Your task to perform on an android device: Open battery settings Image 0: 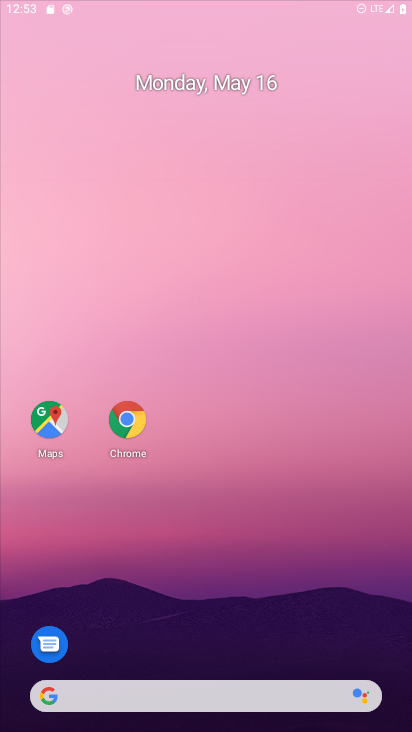
Step 0: click (209, 103)
Your task to perform on an android device: Open battery settings Image 1: 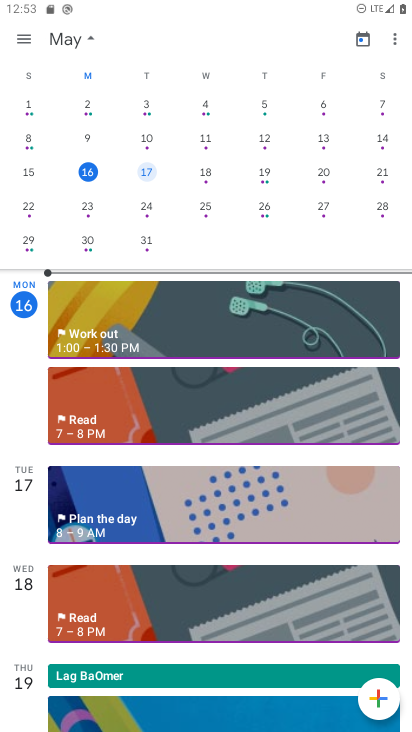
Step 1: drag from (238, 609) to (268, 344)
Your task to perform on an android device: Open battery settings Image 2: 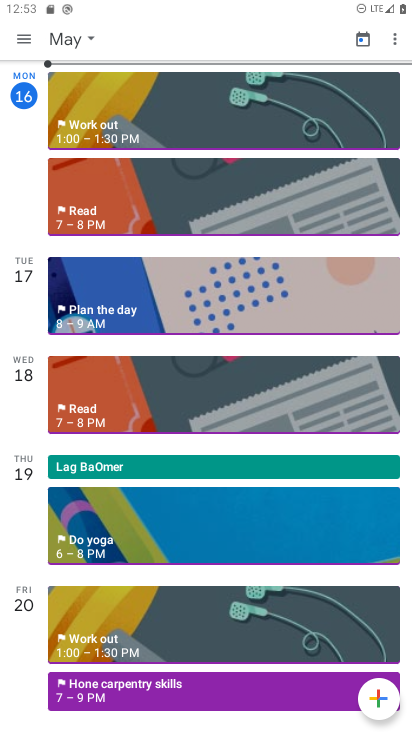
Step 2: drag from (226, 651) to (219, 343)
Your task to perform on an android device: Open battery settings Image 3: 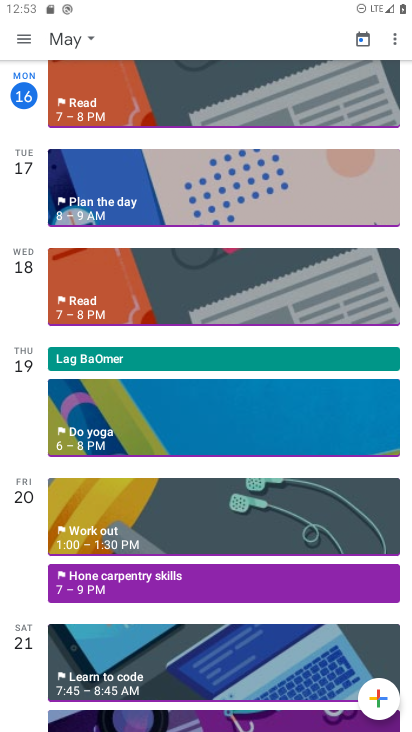
Step 3: drag from (196, 344) to (284, 723)
Your task to perform on an android device: Open battery settings Image 4: 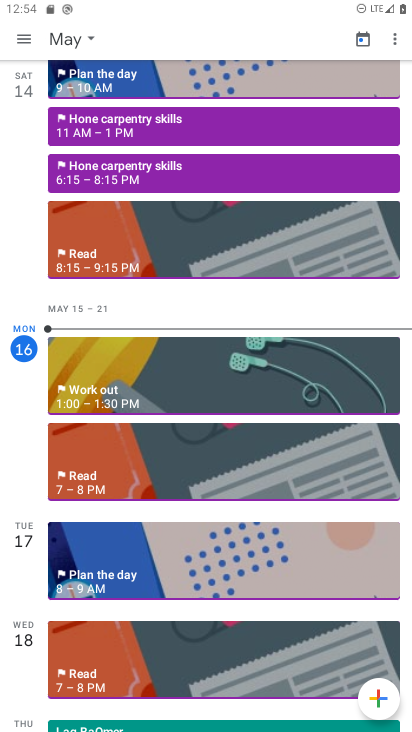
Step 4: click (76, 46)
Your task to perform on an android device: Open battery settings Image 5: 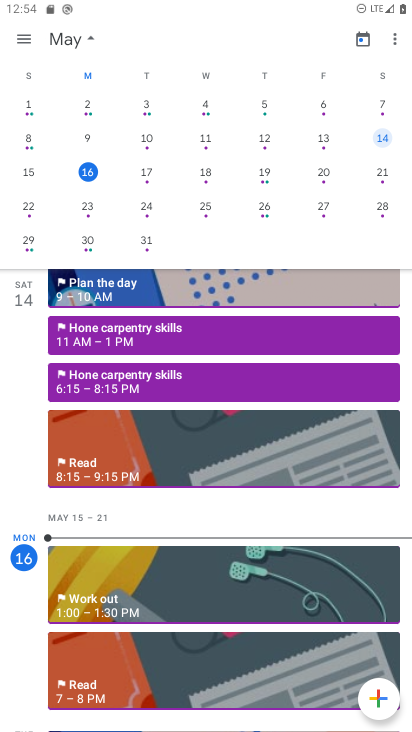
Step 5: drag from (362, 208) to (80, 199)
Your task to perform on an android device: Open battery settings Image 6: 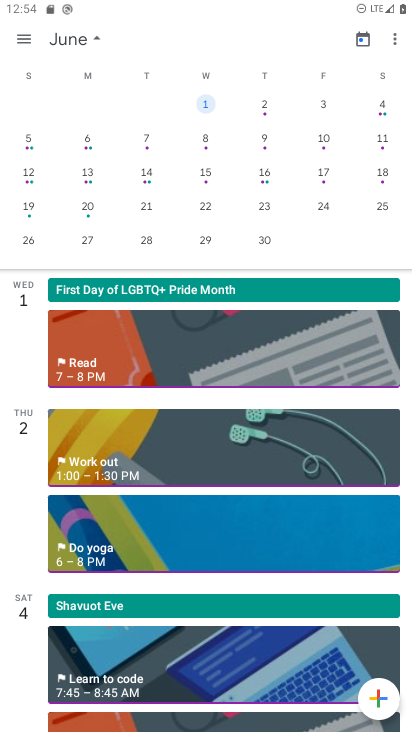
Step 6: drag from (27, 186) to (408, 168)
Your task to perform on an android device: Open battery settings Image 7: 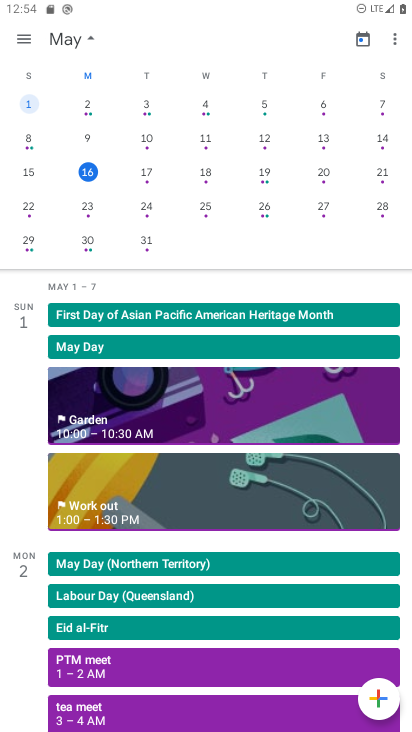
Step 7: click (148, 176)
Your task to perform on an android device: Open battery settings Image 8: 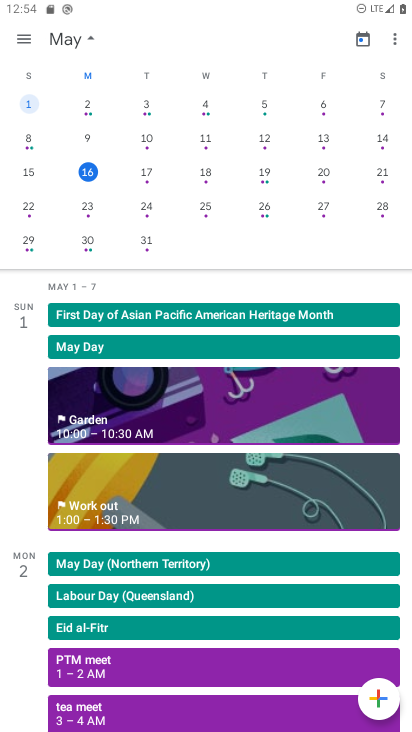
Step 8: click (147, 175)
Your task to perform on an android device: Open battery settings Image 9: 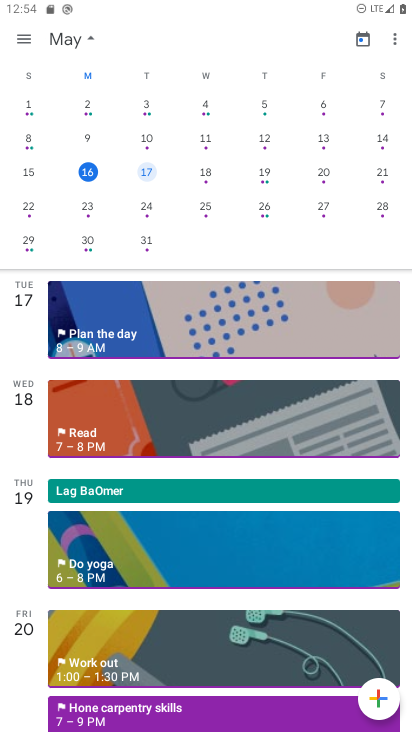
Step 9: click (208, 169)
Your task to perform on an android device: Open battery settings Image 10: 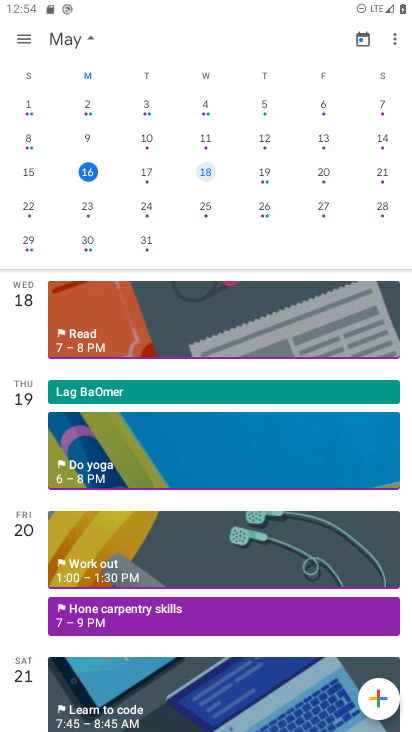
Step 10: drag from (258, 534) to (349, 49)
Your task to perform on an android device: Open battery settings Image 11: 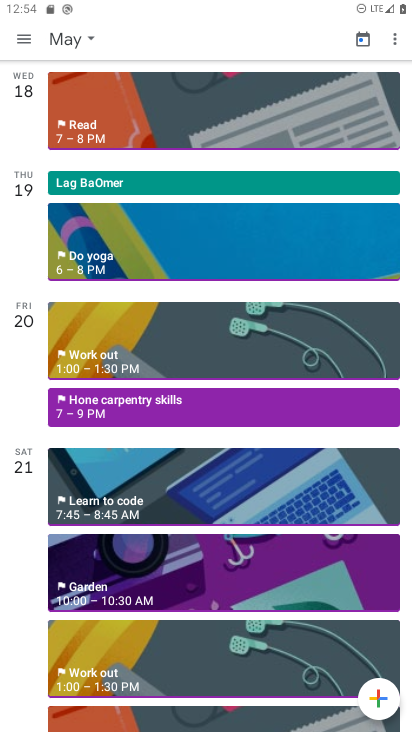
Step 11: press home button
Your task to perform on an android device: Open battery settings Image 12: 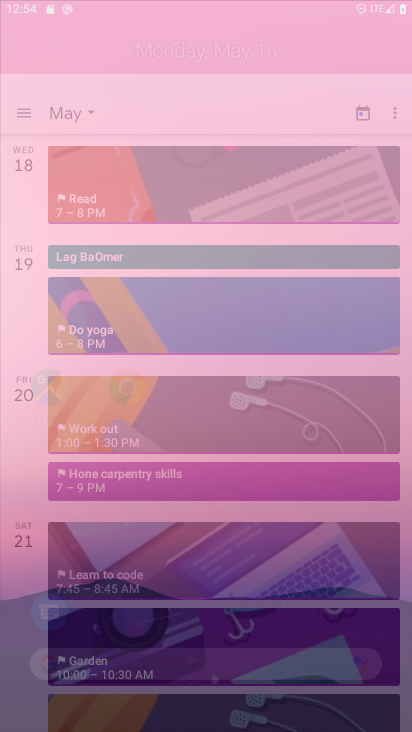
Step 12: drag from (277, 510) to (288, 380)
Your task to perform on an android device: Open battery settings Image 13: 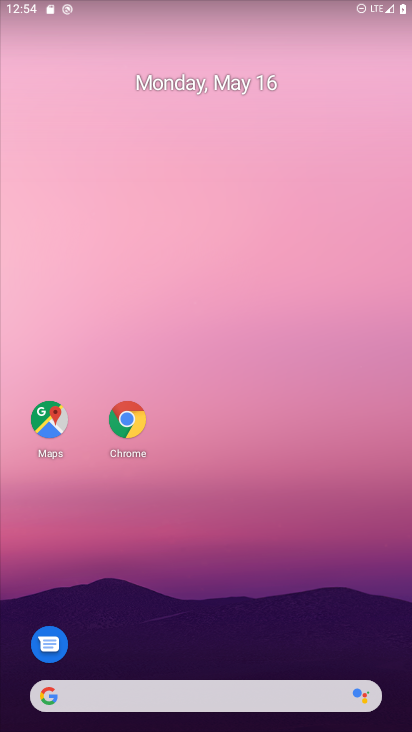
Step 13: drag from (218, 440) to (194, 40)
Your task to perform on an android device: Open battery settings Image 14: 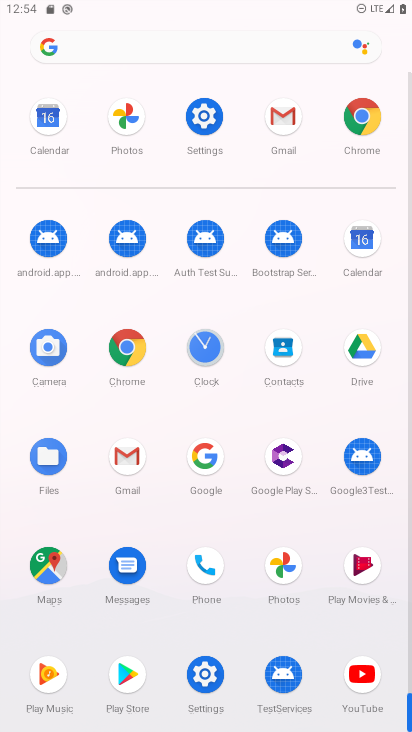
Step 14: click (189, 104)
Your task to perform on an android device: Open battery settings Image 15: 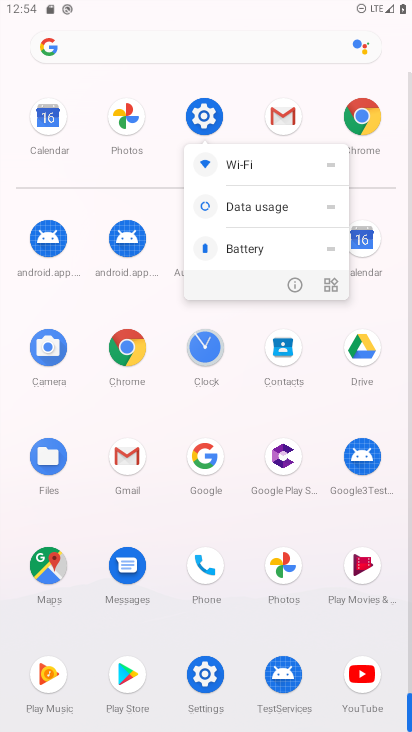
Step 15: click (298, 275)
Your task to perform on an android device: Open battery settings Image 16: 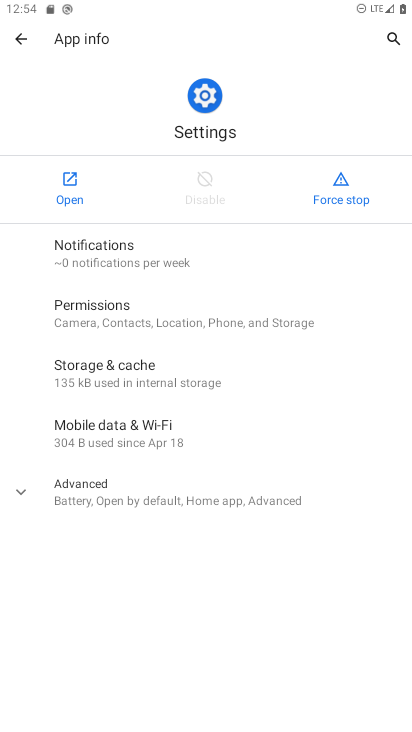
Step 16: click (66, 188)
Your task to perform on an android device: Open battery settings Image 17: 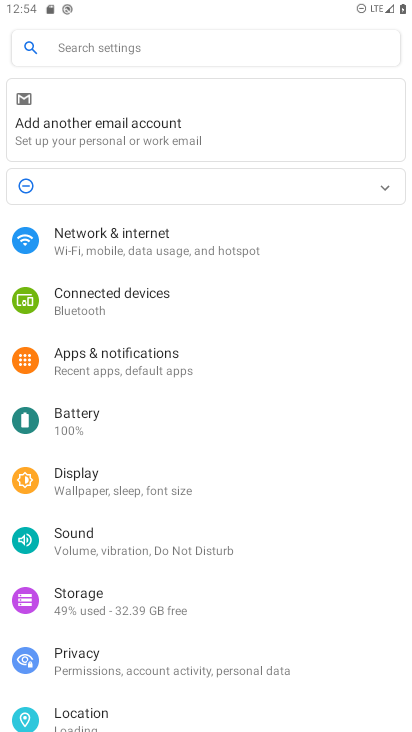
Step 17: drag from (207, 576) to (233, 244)
Your task to perform on an android device: Open battery settings Image 18: 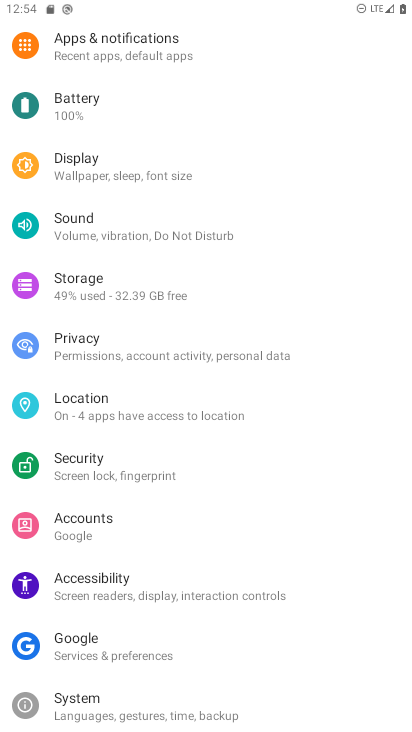
Step 18: click (98, 98)
Your task to perform on an android device: Open battery settings Image 19: 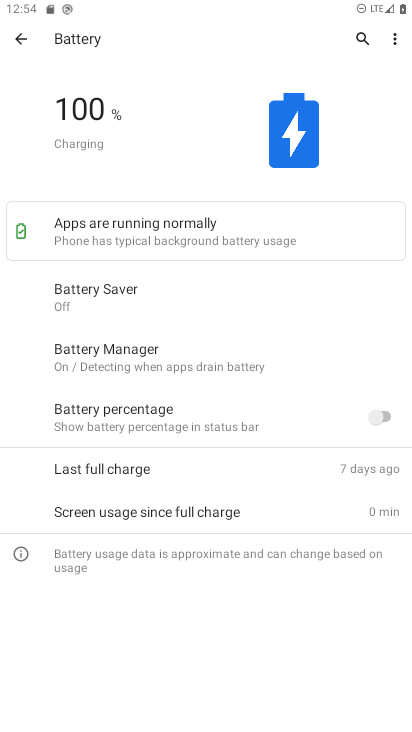
Step 19: click (395, 34)
Your task to perform on an android device: Open battery settings Image 20: 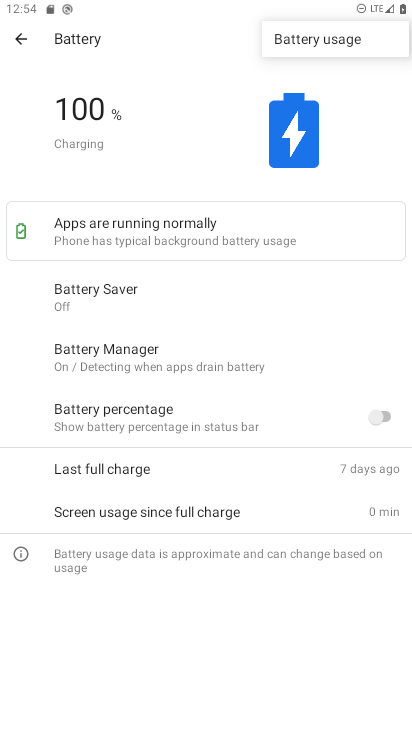
Step 20: click (356, 23)
Your task to perform on an android device: Open battery settings Image 21: 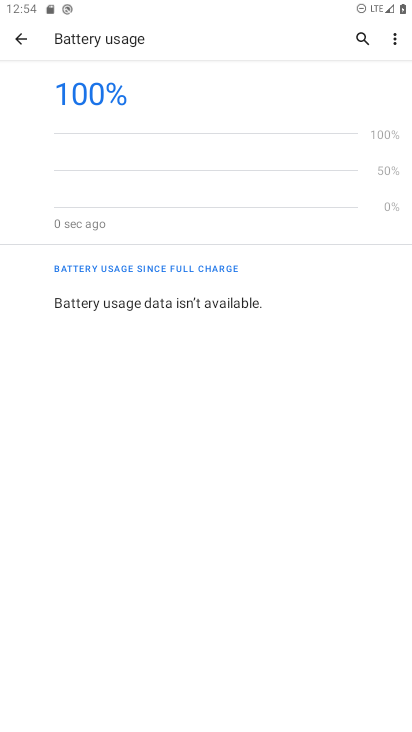
Step 21: task complete